Your task to perform on an android device: create a new album in the google photos Image 0: 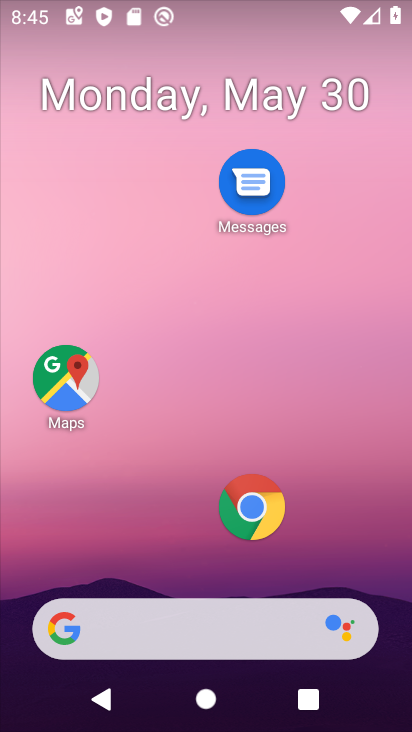
Step 0: drag from (288, 564) to (22, 460)
Your task to perform on an android device: create a new album in the google photos Image 1: 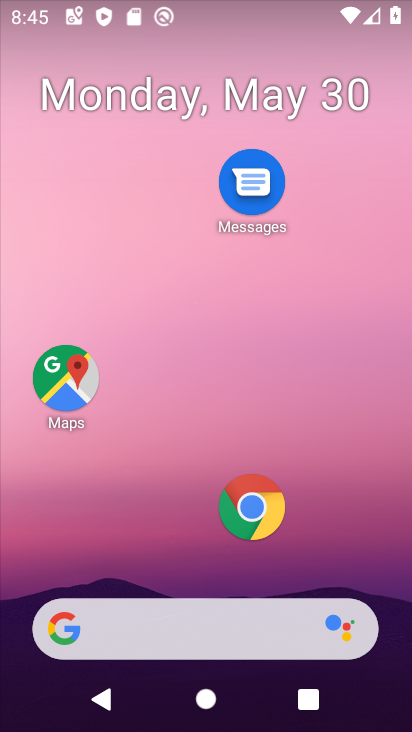
Step 1: drag from (210, 561) to (245, 15)
Your task to perform on an android device: create a new album in the google photos Image 2: 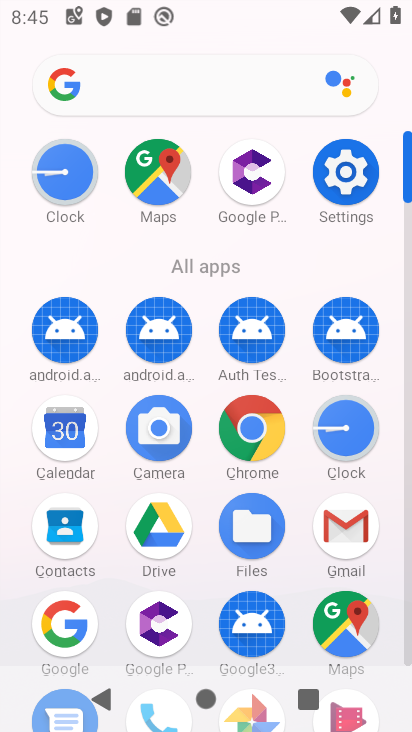
Step 2: drag from (210, 633) to (315, 240)
Your task to perform on an android device: create a new album in the google photos Image 3: 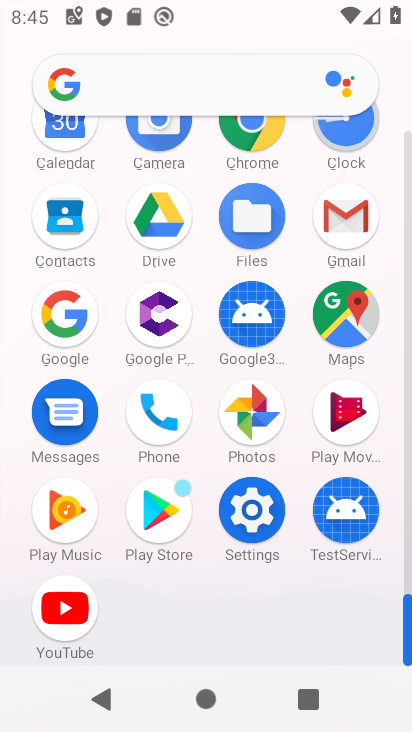
Step 3: click (260, 432)
Your task to perform on an android device: create a new album in the google photos Image 4: 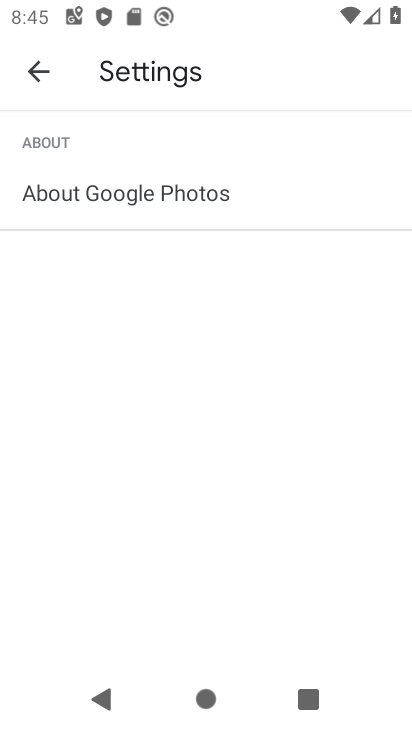
Step 4: click (40, 71)
Your task to perform on an android device: create a new album in the google photos Image 5: 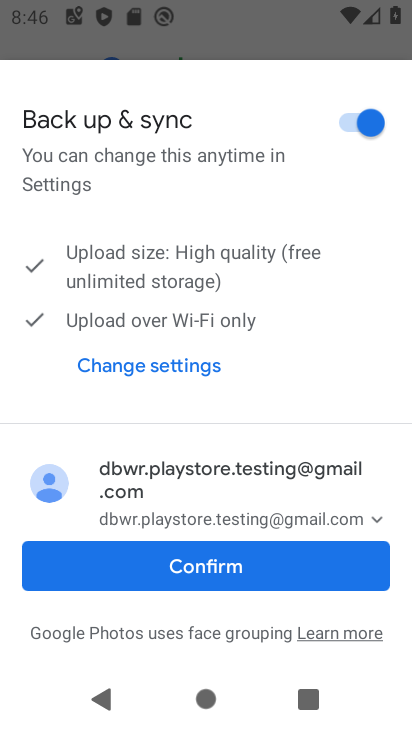
Step 5: click (197, 589)
Your task to perform on an android device: create a new album in the google photos Image 6: 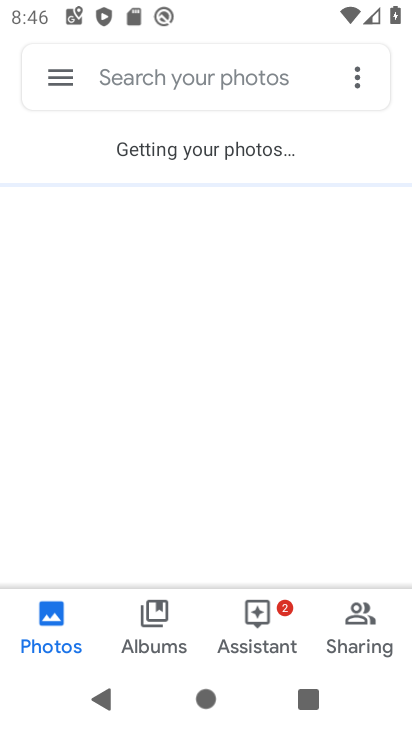
Step 6: click (132, 648)
Your task to perform on an android device: create a new album in the google photos Image 7: 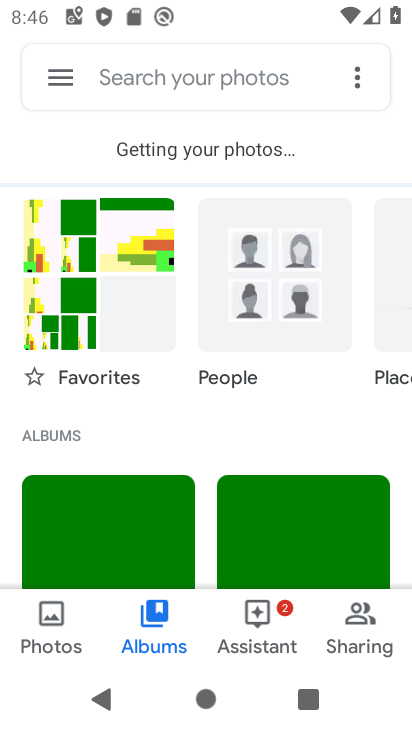
Step 7: drag from (165, 478) to (126, 329)
Your task to perform on an android device: create a new album in the google photos Image 8: 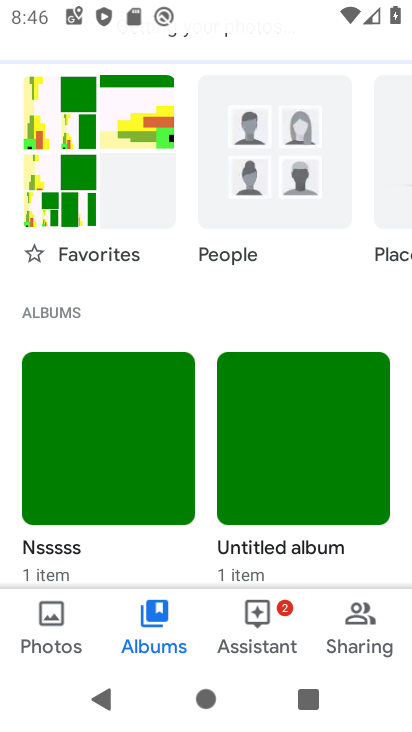
Step 8: drag from (202, 311) to (205, 703)
Your task to perform on an android device: create a new album in the google photos Image 9: 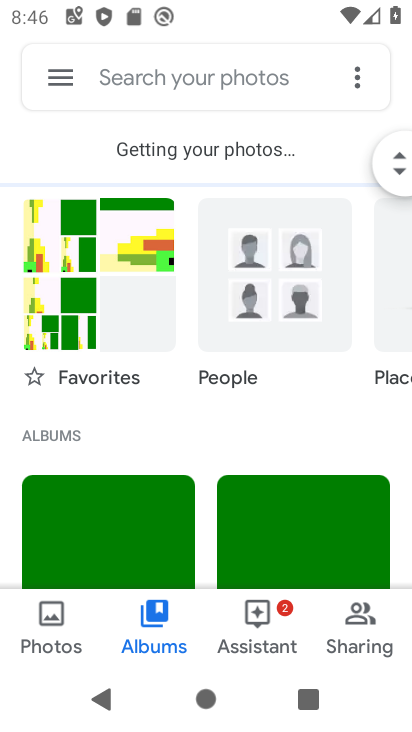
Step 9: click (355, 93)
Your task to perform on an android device: create a new album in the google photos Image 10: 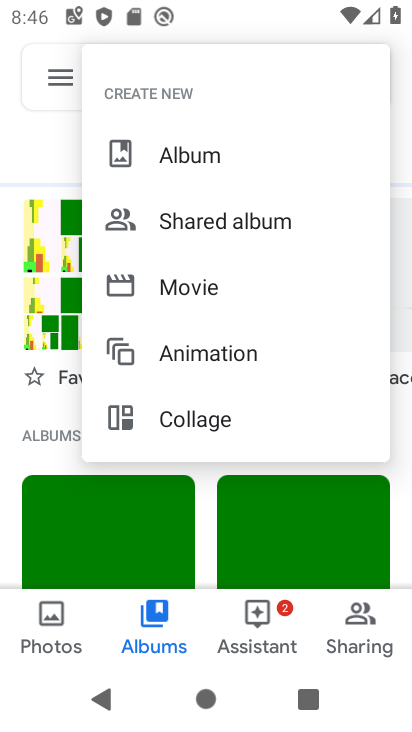
Step 10: click (175, 165)
Your task to perform on an android device: create a new album in the google photos Image 11: 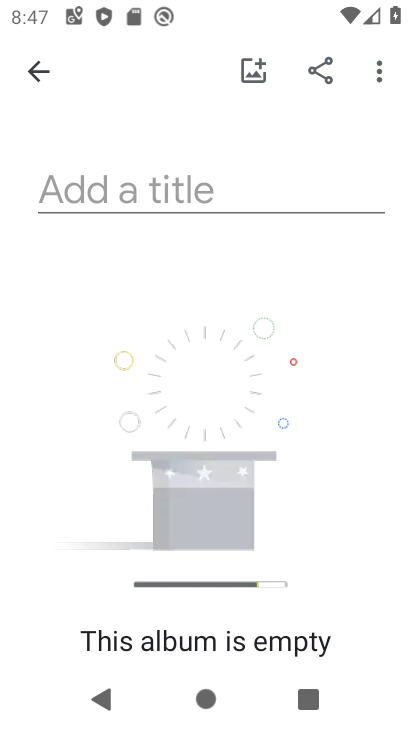
Step 11: click (176, 176)
Your task to perform on an android device: create a new album in the google photos Image 12: 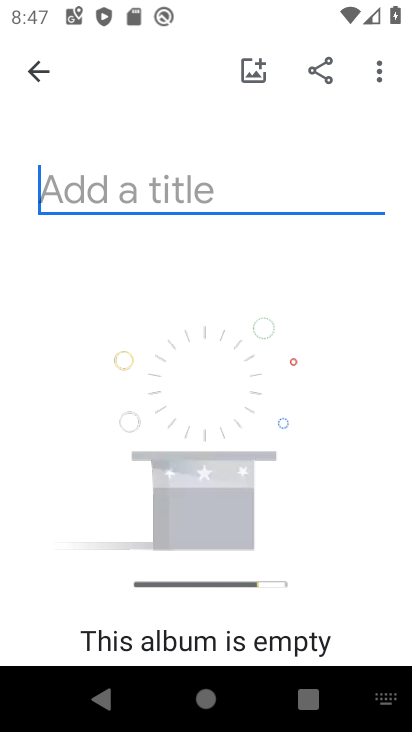
Step 12: type "Bablu"
Your task to perform on an android device: create a new album in the google photos Image 13: 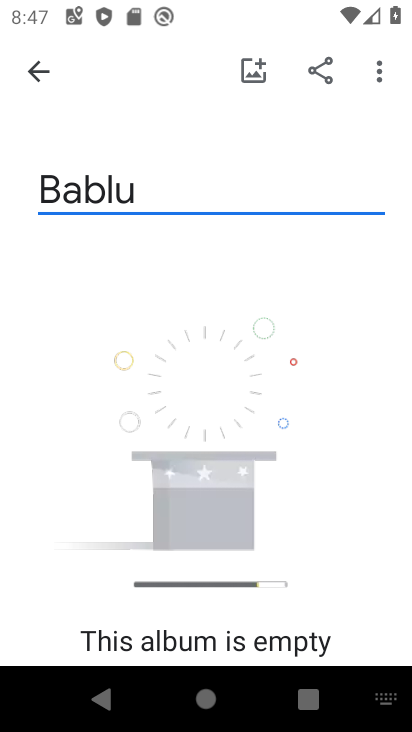
Step 13: drag from (197, 526) to (120, 195)
Your task to perform on an android device: create a new album in the google photos Image 14: 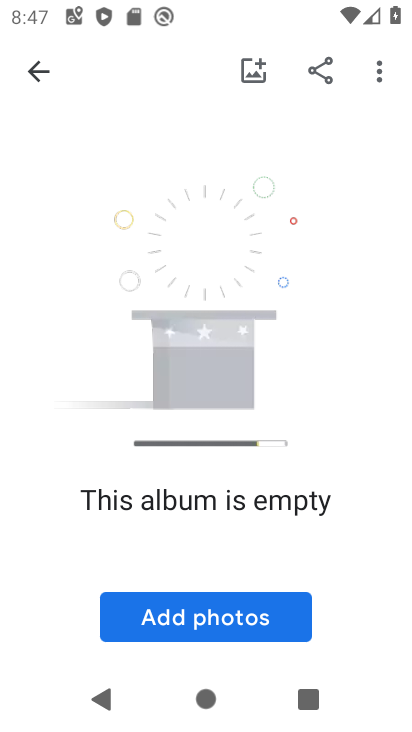
Step 14: click (220, 625)
Your task to perform on an android device: create a new album in the google photos Image 15: 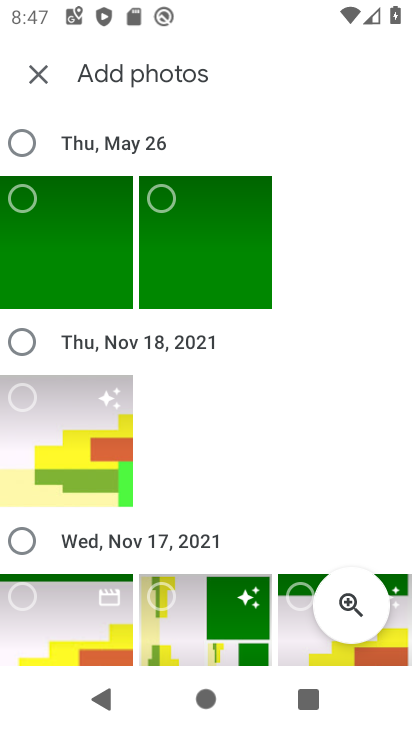
Step 15: click (22, 152)
Your task to perform on an android device: create a new album in the google photos Image 16: 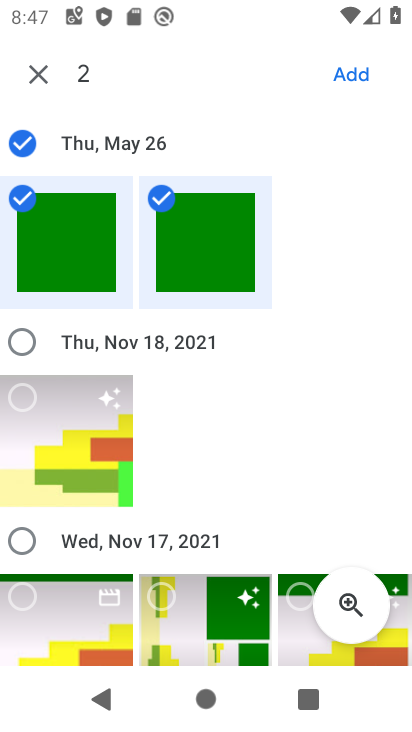
Step 16: click (357, 79)
Your task to perform on an android device: create a new album in the google photos Image 17: 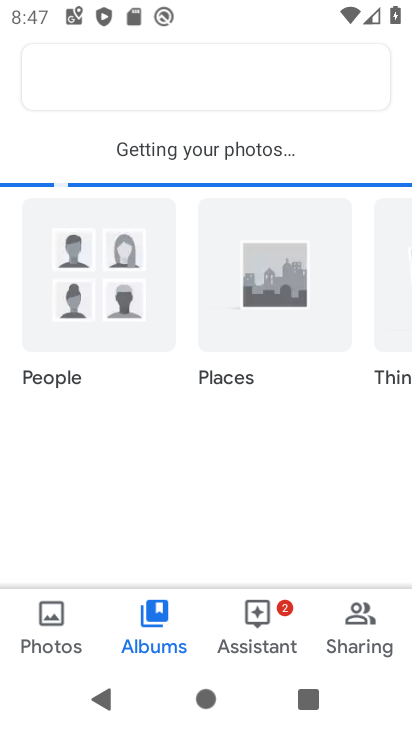
Step 17: task complete